Your task to perform on an android device: show emergency info Image 0: 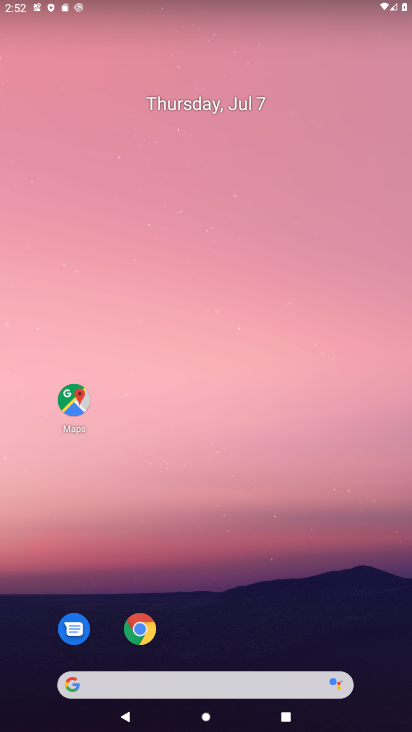
Step 0: drag from (218, 421) to (225, 522)
Your task to perform on an android device: show emergency info Image 1: 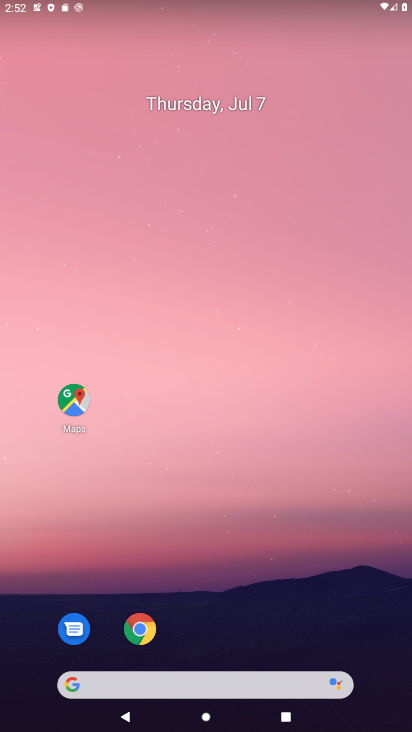
Step 1: drag from (183, 13) to (253, 643)
Your task to perform on an android device: show emergency info Image 2: 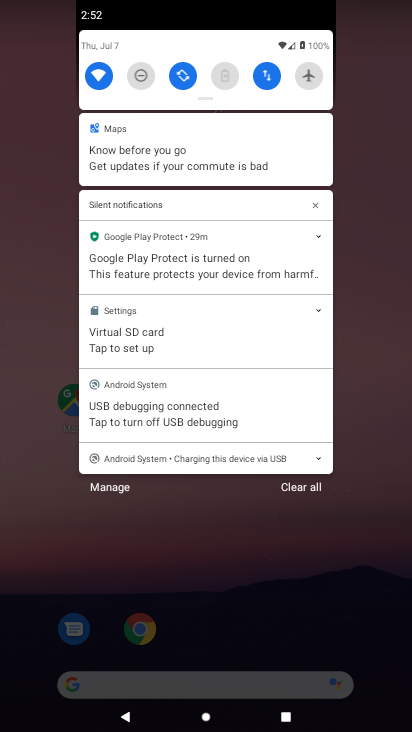
Step 2: drag from (214, 48) to (222, 726)
Your task to perform on an android device: show emergency info Image 3: 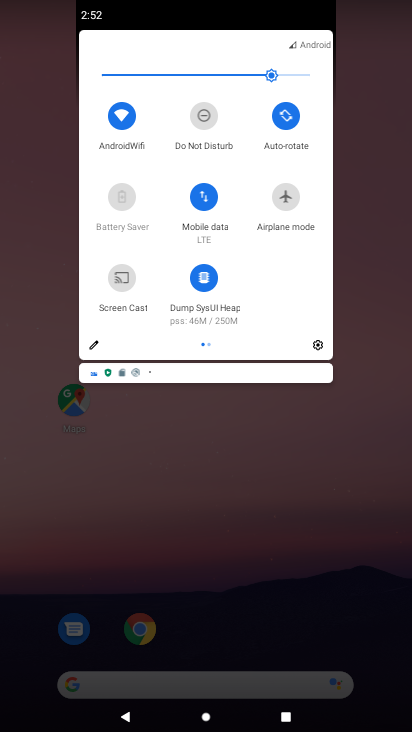
Step 3: click (316, 337)
Your task to perform on an android device: show emergency info Image 4: 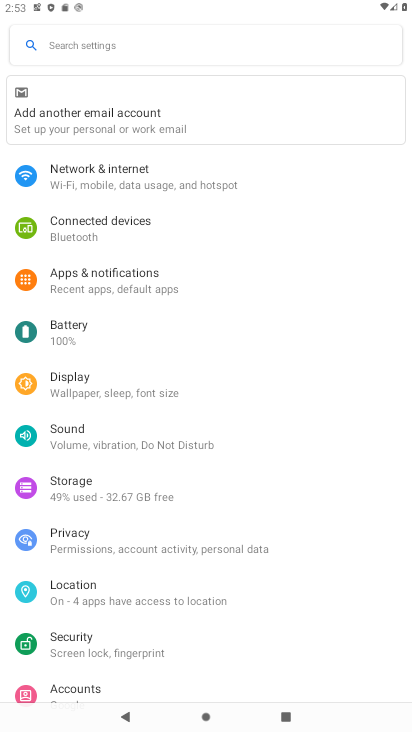
Step 4: drag from (154, 660) to (189, 250)
Your task to perform on an android device: show emergency info Image 5: 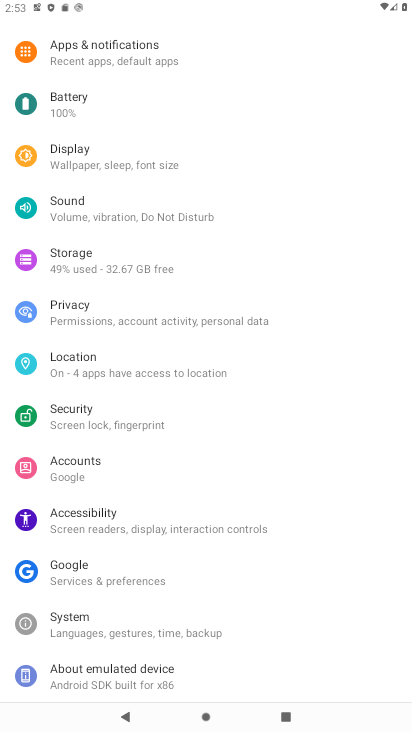
Step 5: click (83, 681)
Your task to perform on an android device: show emergency info Image 6: 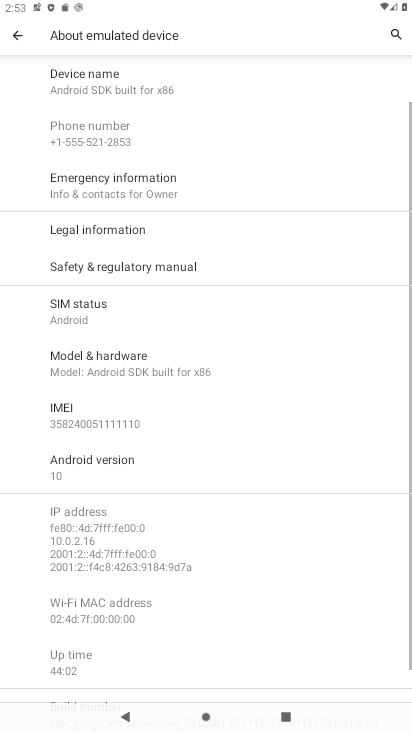
Step 6: click (161, 179)
Your task to perform on an android device: show emergency info Image 7: 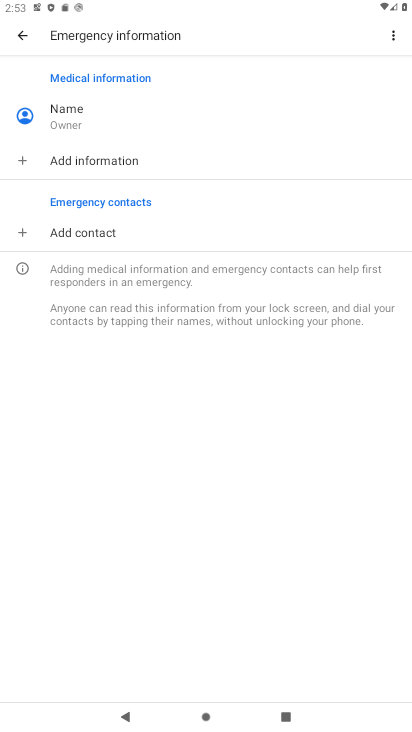
Step 7: task complete